Your task to perform on an android device: Show me productivity apps on the Play Store Image 0: 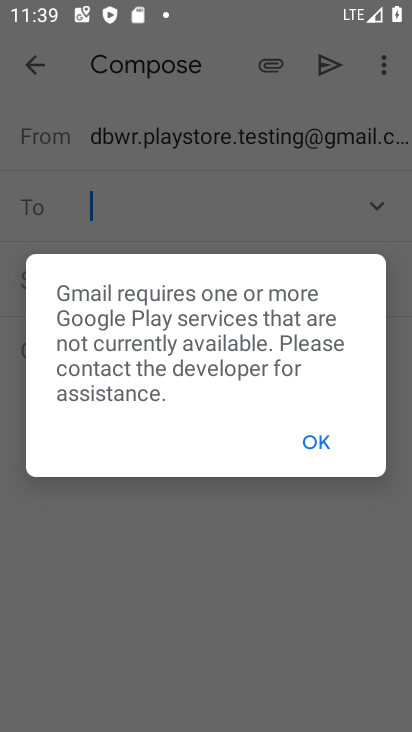
Step 0: press home button
Your task to perform on an android device: Show me productivity apps on the Play Store Image 1: 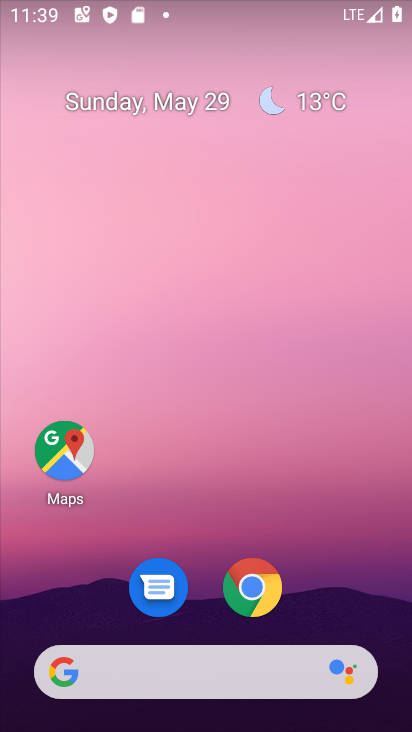
Step 1: drag from (320, 571) to (305, 53)
Your task to perform on an android device: Show me productivity apps on the Play Store Image 2: 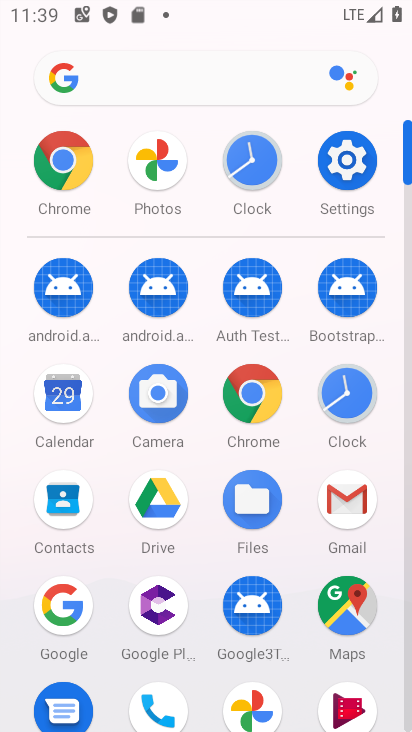
Step 2: drag from (318, 588) to (331, 209)
Your task to perform on an android device: Show me productivity apps on the Play Store Image 3: 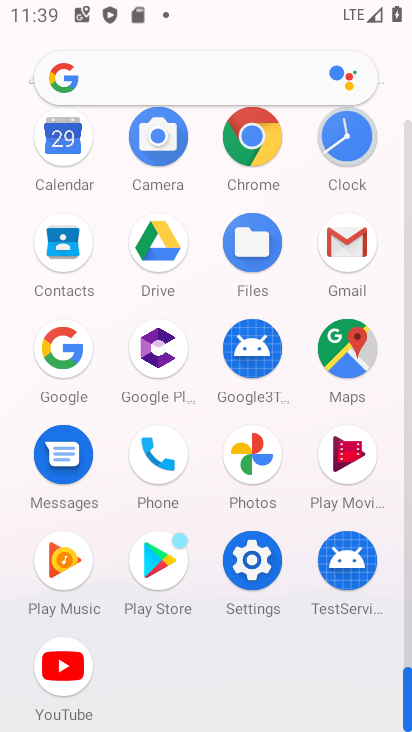
Step 3: click (165, 562)
Your task to perform on an android device: Show me productivity apps on the Play Store Image 4: 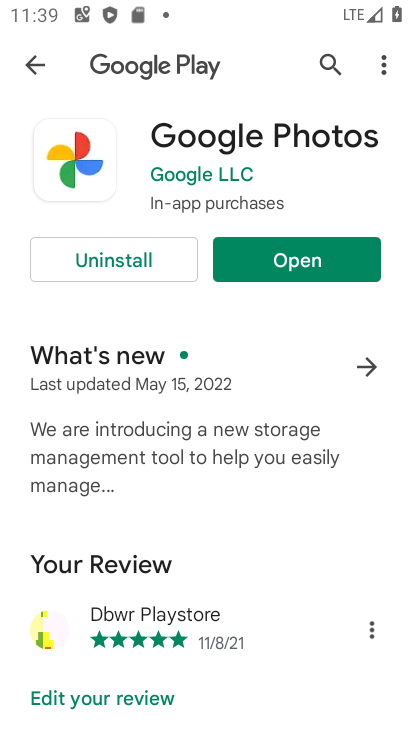
Step 4: click (44, 87)
Your task to perform on an android device: Show me productivity apps on the Play Store Image 5: 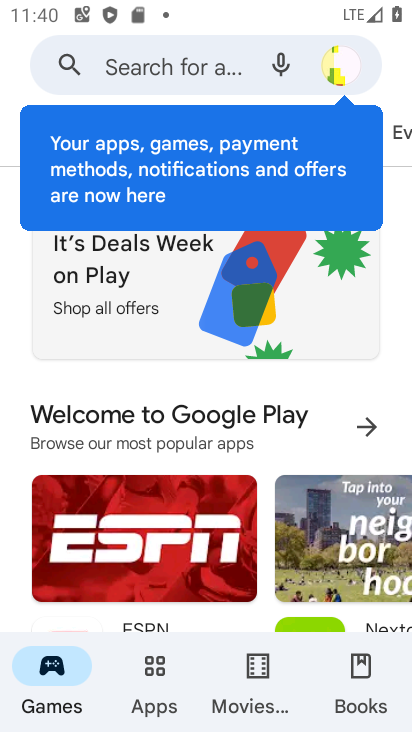
Step 5: click (150, 666)
Your task to perform on an android device: Show me productivity apps on the Play Store Image 6: 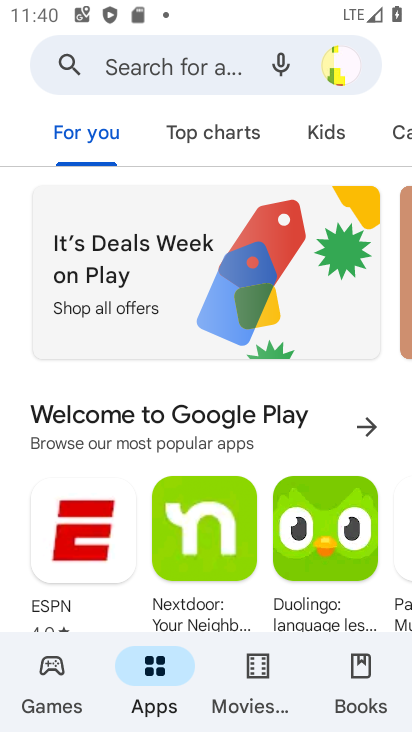
Step 6: drag from (246, 555) to (325, 125)
Your task to perform on an android device: Show me productivity apps on the Play Store Image 7: 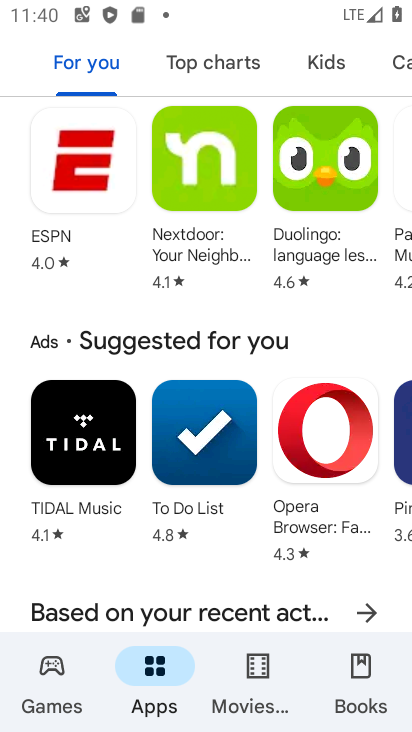
Step 7: drag from (321, 341) to (331, 97)
Your task to perform on an android device: Show me productivity apps on the Play Store Image 8: 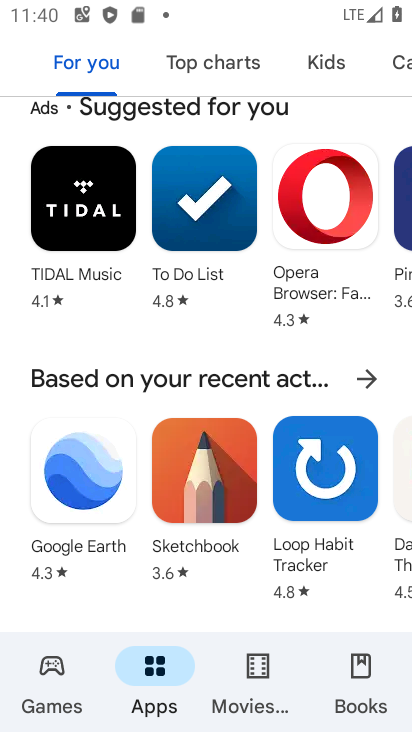
Step 8: drag from (181, 492) to (271, 104)
Your task to perform on an android device: Show me productivity apps on the Play Store Image 9: 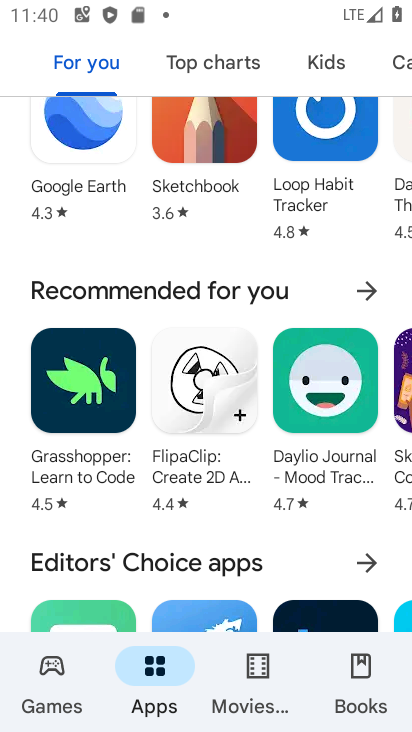
Step 9: drag from (203, 550) to (288, 191)
Your task to perform on an android device: Show me productivity apps on the Play Store Image 10: 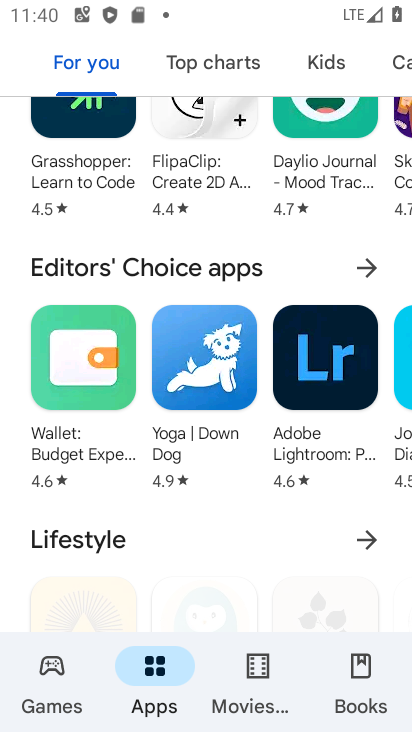
Step 10: click (292, 166)
Your task to perform on an android device: Show me productivity apps on the Play Store Image 11: 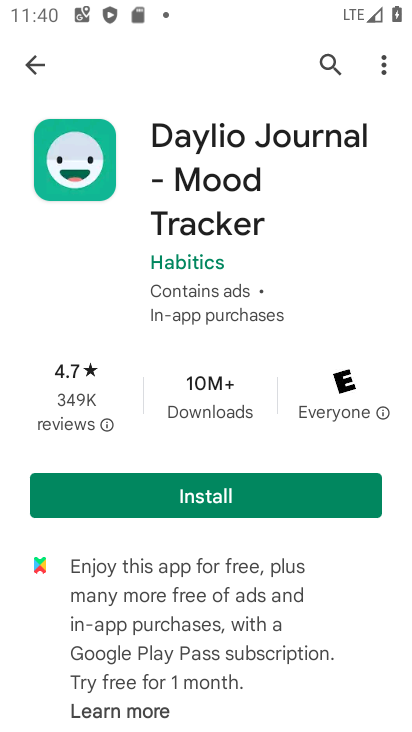
Step 11: task complete